Your task to perform on an android device: Turn on the flashlight Image 0: 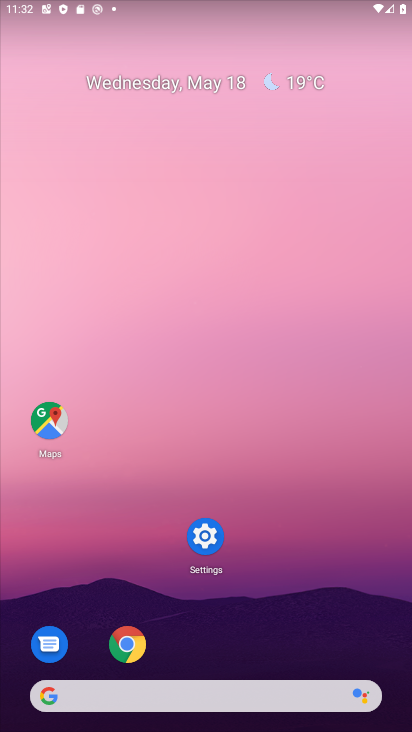
Step 0: drag from (339, 552) to (347, 58)
Your task to perform on an android device: Turn on the flashlight Image 1: 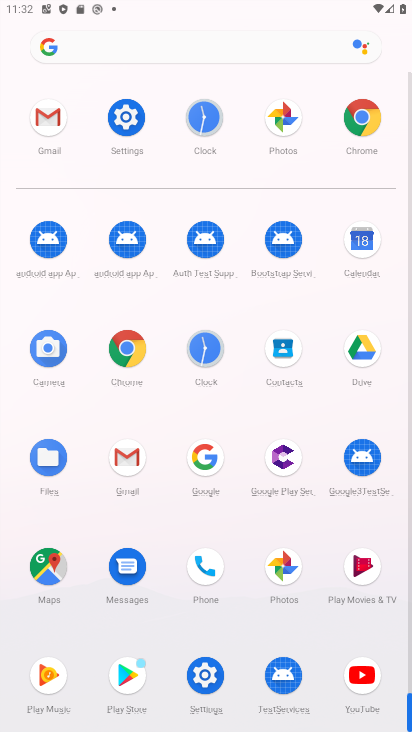
Step 1: task complete